Your task to perform on an android device: Do I have any events tomorrow? Image 0: 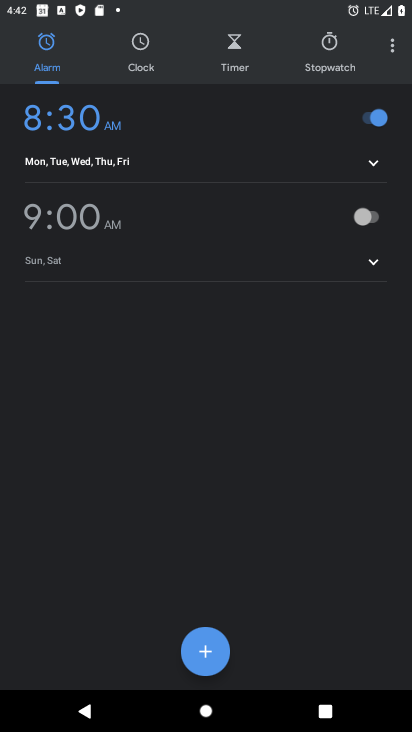
Step 0: press home button
Your task to perform on an android device: Do I have any events tomorrow? Image 1: 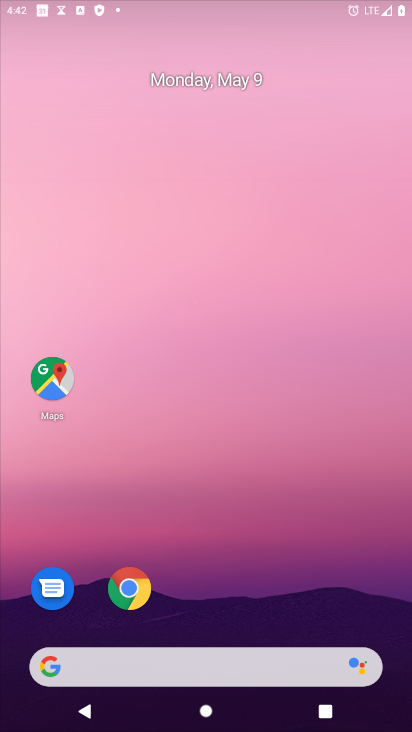
Step 1: drag from (279, 524) to (207, 98)
Your task to perform on an android device: Do I have any events tomorrow? Image 2: 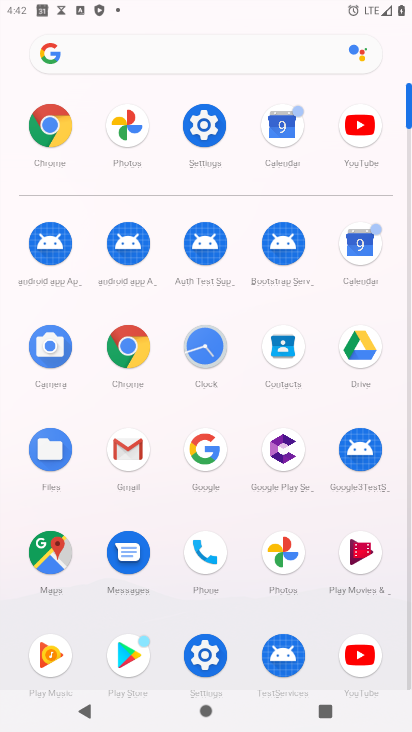
Step 2: click (348, 246)
Your task to perform on an android device: Do I have any events tomorrow? Image 3: 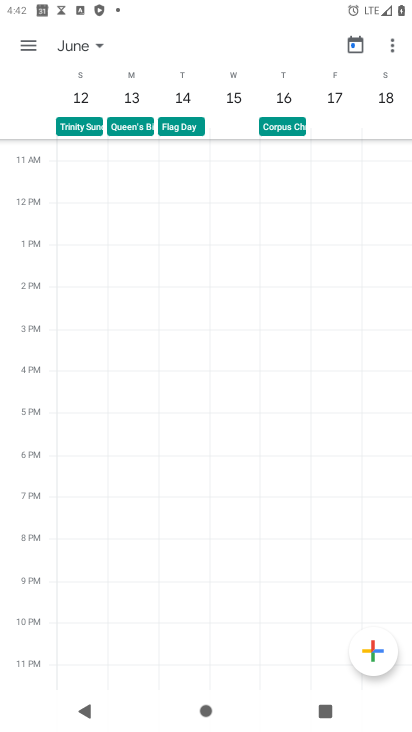
Step 3: click (98, 49)
Your task to perform on an android device: Do I have any events tomorrow? Image 4: 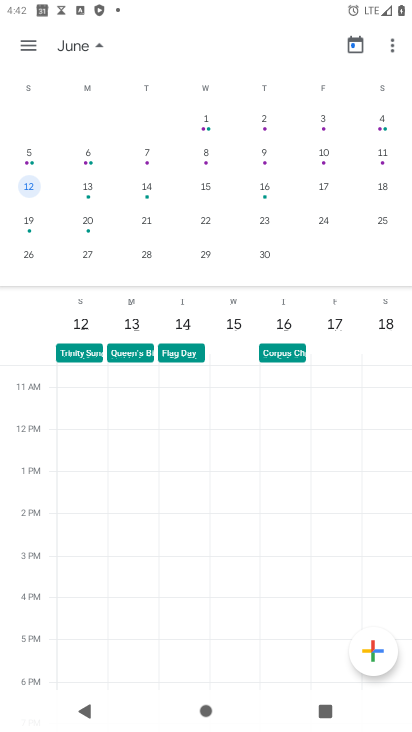
Step 4: drag from (59, 211) to (410, 166)
Your task to perform on an android device: Do I have any events tomorrow? Image 5: 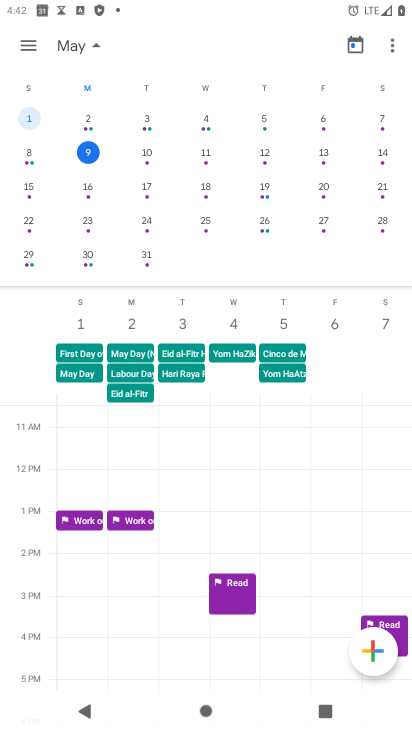
Step 5: click (34, 150)
Your task to perform on an android device: Do I have any events tomorrow? Image 6: 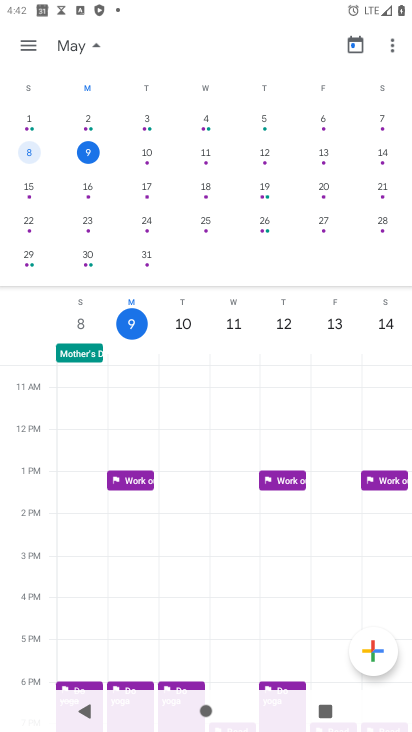
Step 6: task complete